Your task to perform on an android device: allow cookies in the chrome app Image 0: 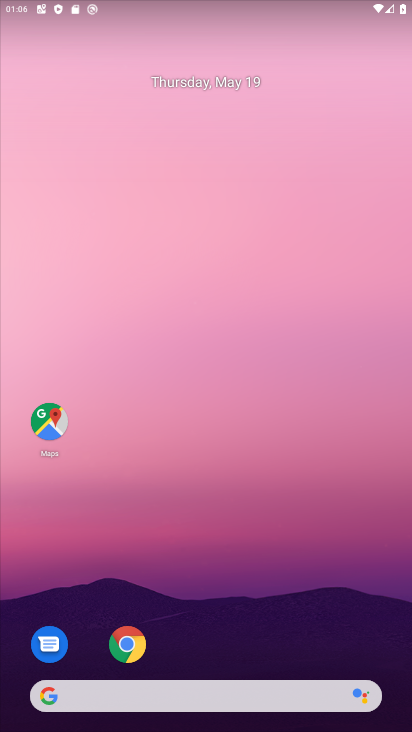
Step 0: drag from (289, 514) to (318, 163)
Your task to perform on an android device: allow cookies in the chrome app Image 1: 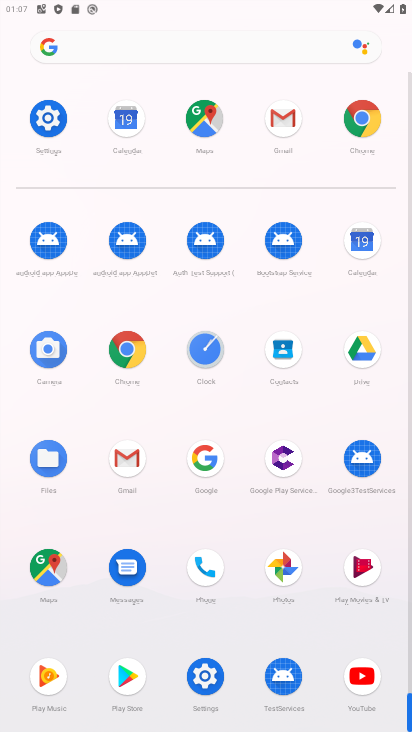
Step 1: click (138, 345)
Your task to perform on an android device: allow cookies in the chrome app Image 2: 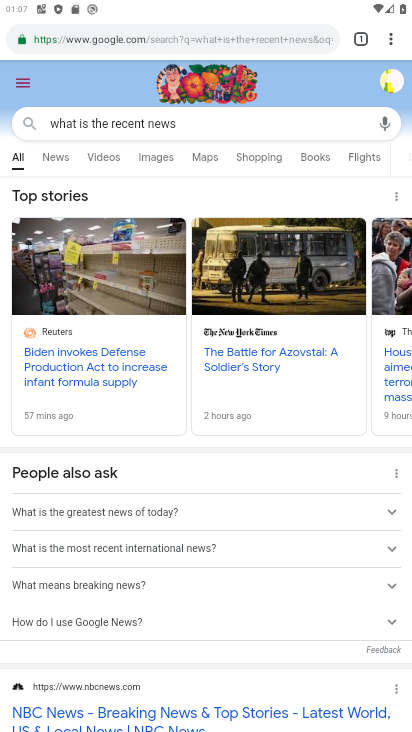
Step 2: drag from (395, 42) to (275, 440)
Your task to perform on an android device: allow cookies in the chrome app Image 3: 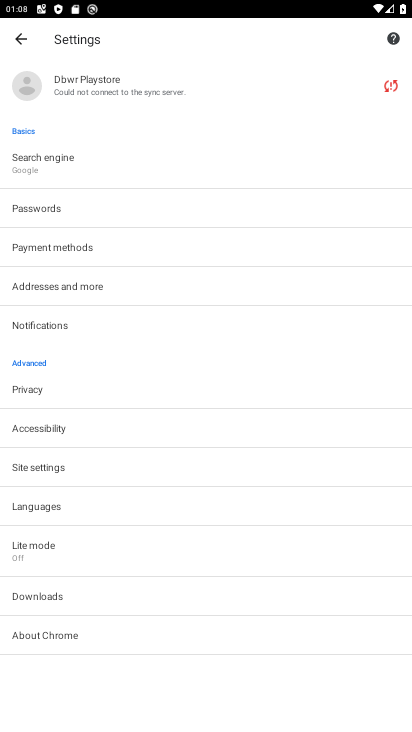
Step 3: click (91, 464)
Your task to perform on an android device: allow cookies in the chrome app Image 4: 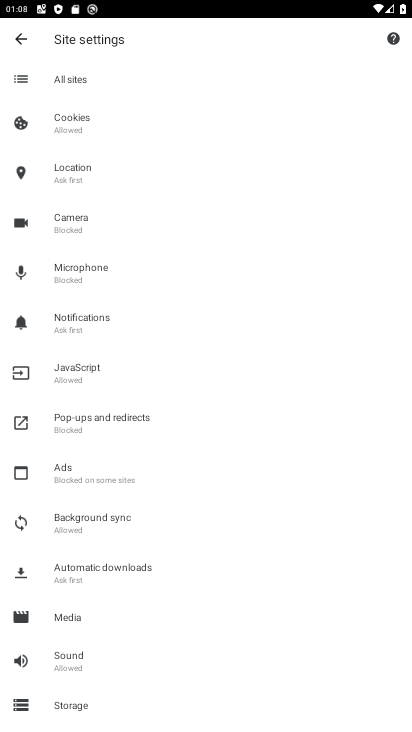
Step 4: click (168, 132)
Your task to perform on an android device: allow cookies in the chrome app Image 5: 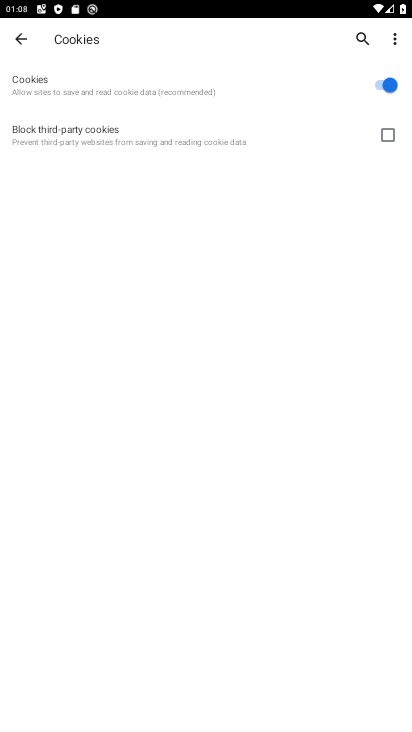
Step 5: task complete